Your task to perform on an android device: Open location settings Image 0: 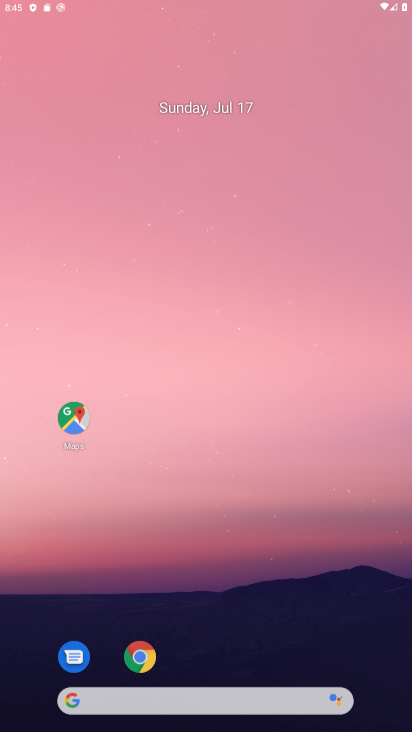
Step 0: press home button
Your task to perform on an android device: Open location settings Image 1: 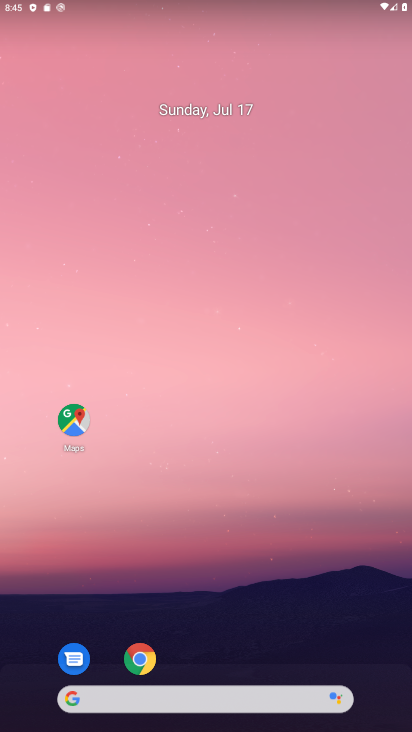
Step 1: drag from (186, 723) to (210, 183)
Your task to perform on an android device: Open location settings Image 2: 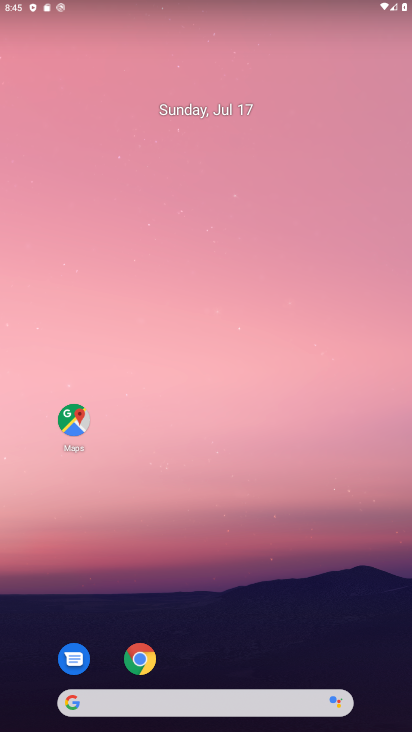
Step 2: drag from (202, 693) to (74, 110)
Your task to perform on an android device: Open location settings Image 3: 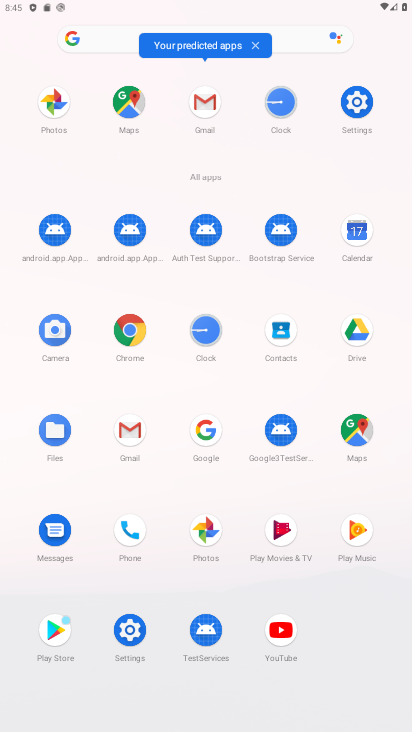
Step 3: click (366, 106)
Your task to perform on an android device: Open location settings Image 4: 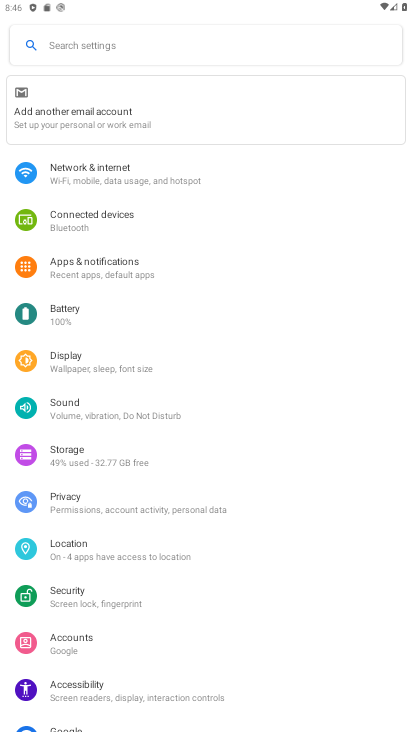
Step 4: click (78, 544)
Your task to perform on an android device: Open location settings Image 5: 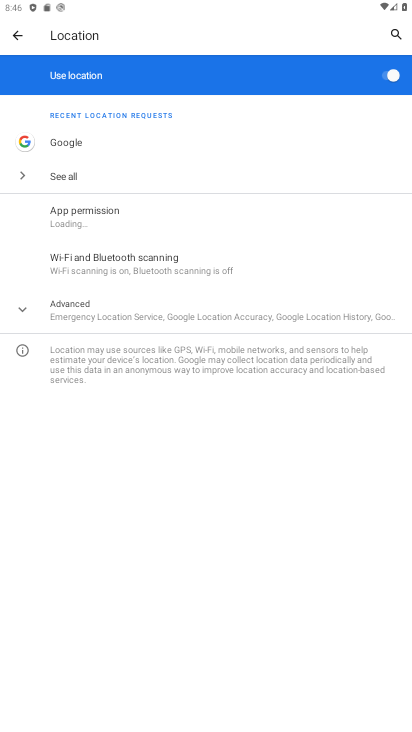
Step 5: task complete